Your task to perform on an android device: change timer sound Image 0: 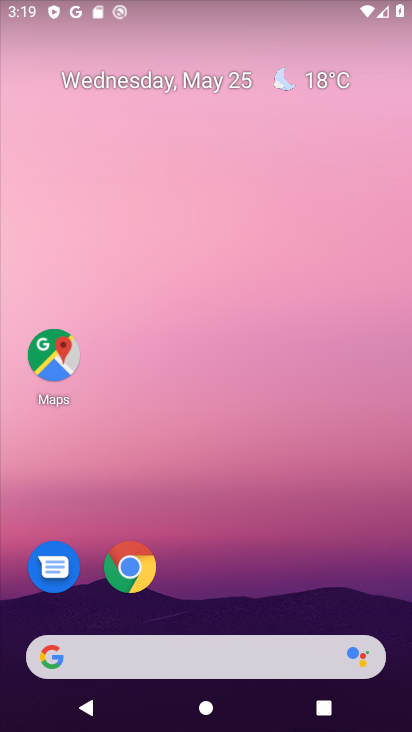
Step 0: drag from (384, 619) to (410, 373)
Your task to perform on an android device: change timer sound Image 1: 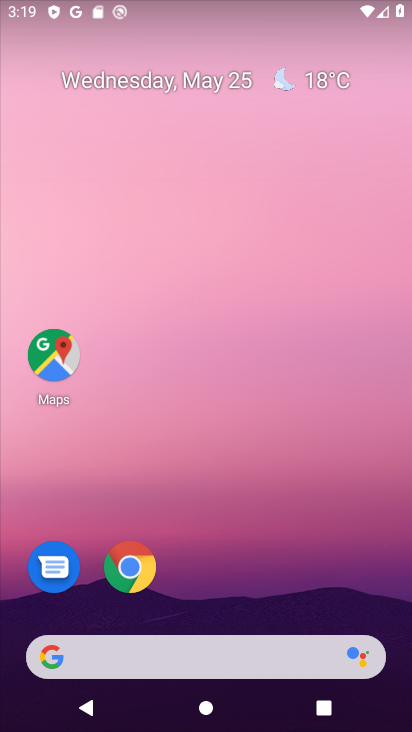
Step 1: drag from (361, 597) to (371, 185)
Your task to perform on an android device: change timer sound Image 2: 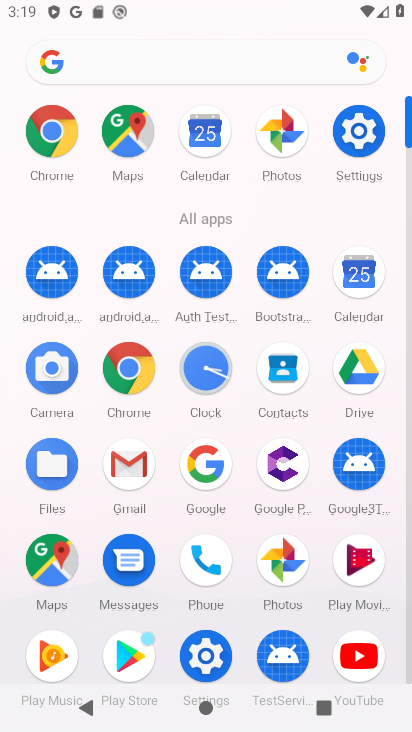
Step 2: click (206, 372)
Your task to perform on an android device: change timer sound Image 3: 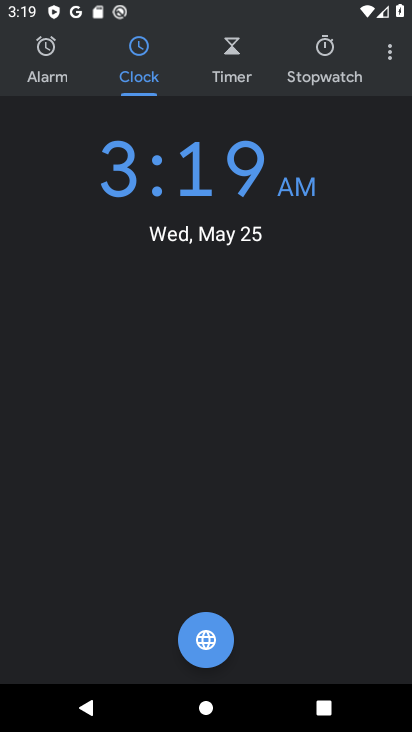
Step 3: click (395, 55)
Your task to perform on an android device: change timer sound Image 4: 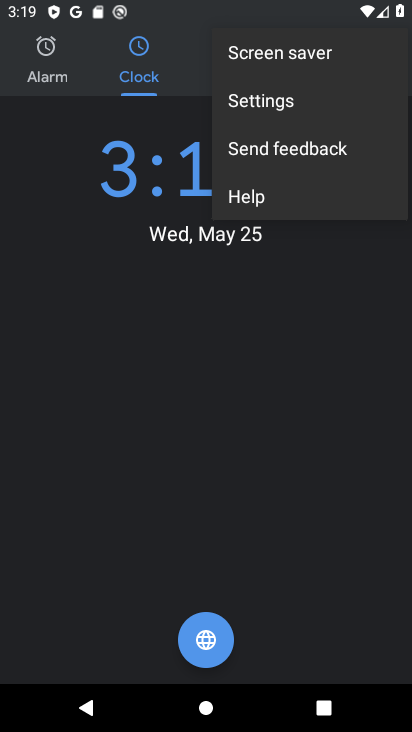
Step 4: click (332, 112)
Your task to perform on an android device: change timer sound Image 5: 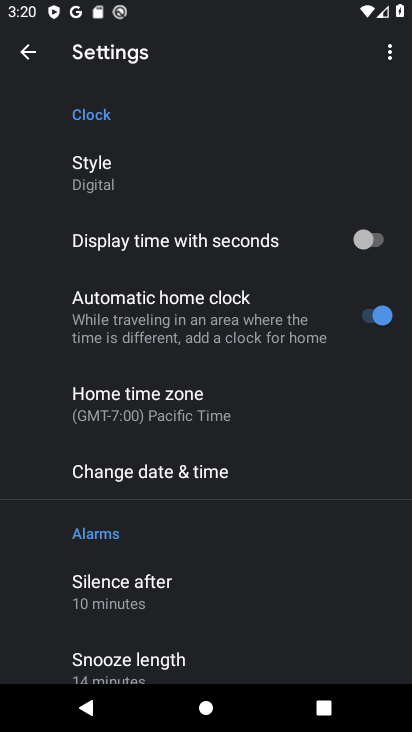
Step 5: drag from (312, 427) to (323, 316)
Your task to perform on an android device: change timer sound Image 6: 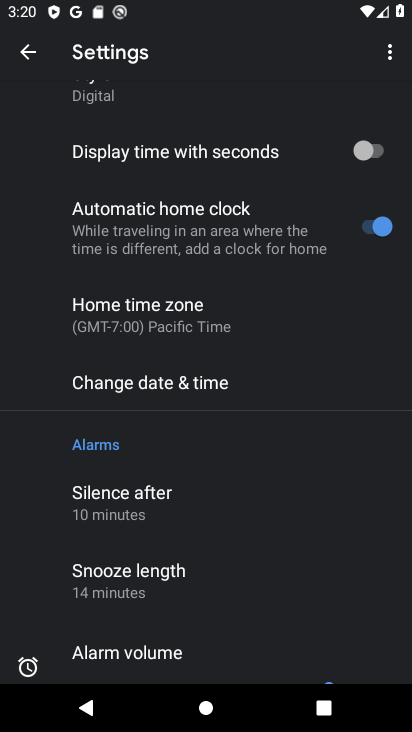
Step 6: drag from (328, 439) to (322, 351)
Your task to perform on an android device: change timer sound Image 7: 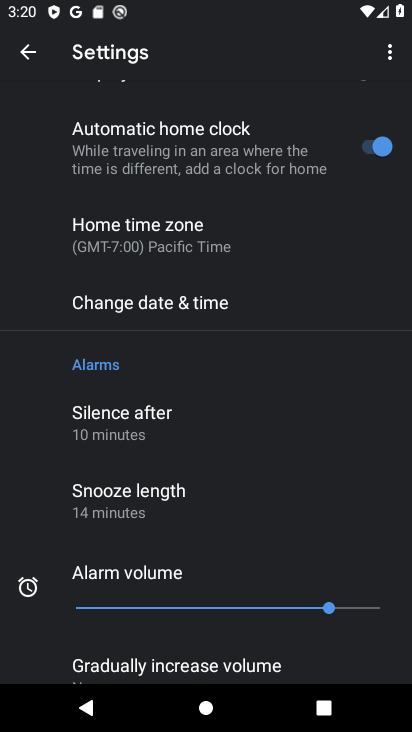
Step 7: drag from (316, 453) to (308, 362)
Your task to perform on an android device: change timer sound Image 8: 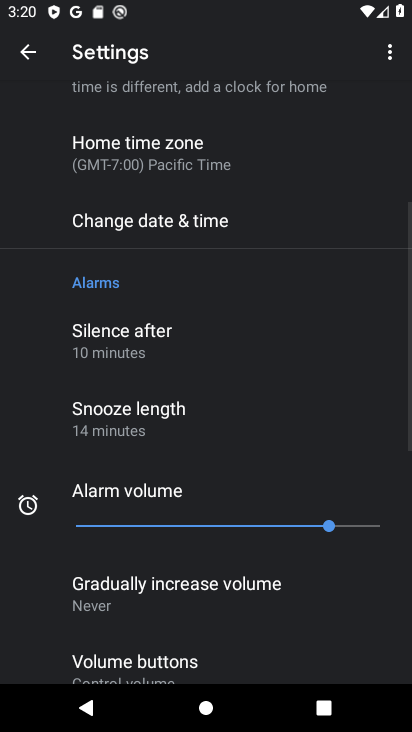
Step 8: drag from (298, 467) to (303, 354)
Your task to perform on an android device: change timer sound Image 9: 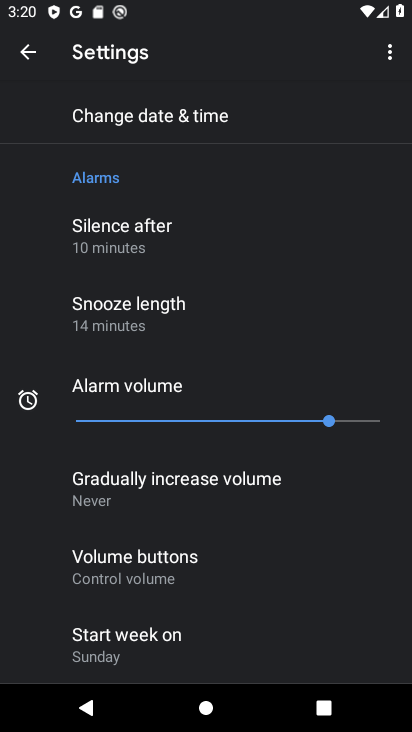
Step 9: drag from (284, 513) to (285, 413)
Your task to perform on an android device: change timer sound Image 10: 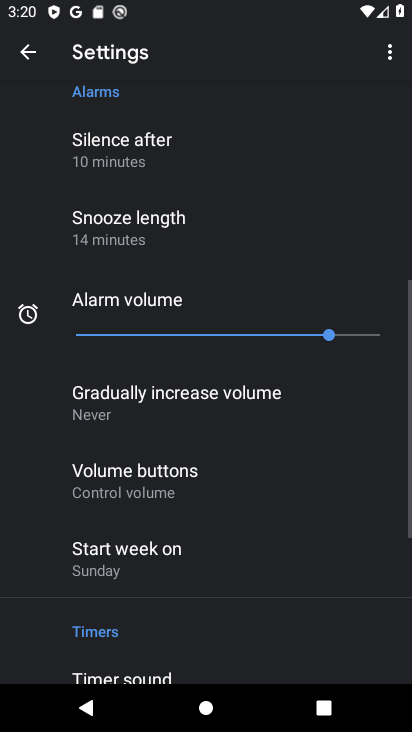
Step 10: drag from (289, 524) to (301, 435)
Your task to perform on an android device: change timer sound Image 11: 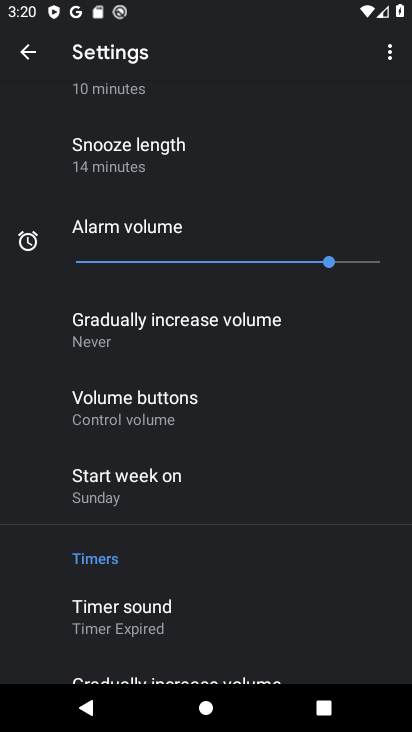
Step 11: drag from (292, 544) to (298, 464)
Your task to perform on an android device: change timer sound Image 12: 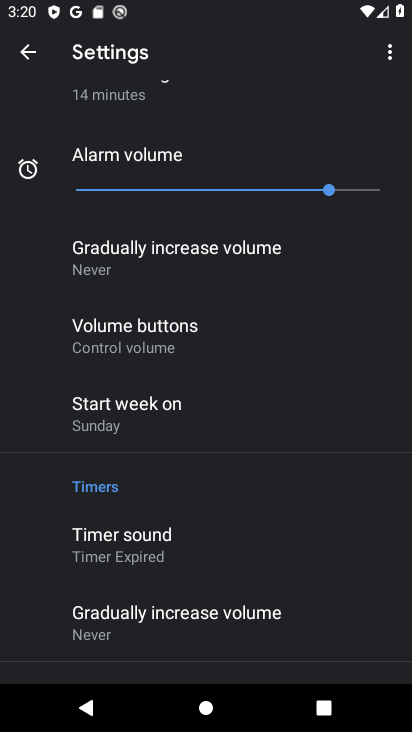
Step 12: drag from (294, 543) to (306, 448)
Your task to perform on an android device: change timer sound Image 13: 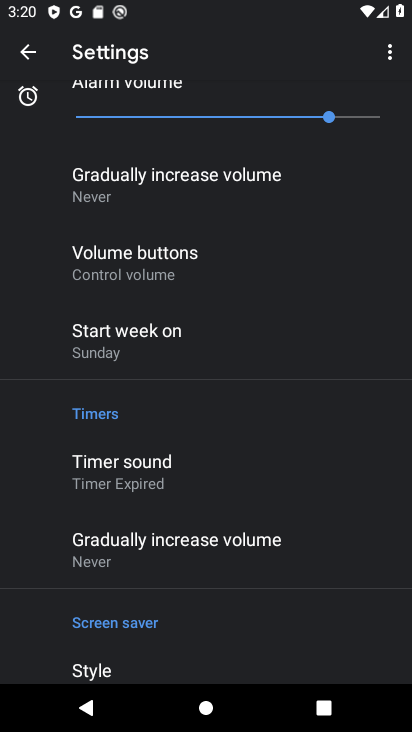
Step 13: drag from (321, 558) to (331, 439)
Your task to perform on an android device: change timer sound Image 14: 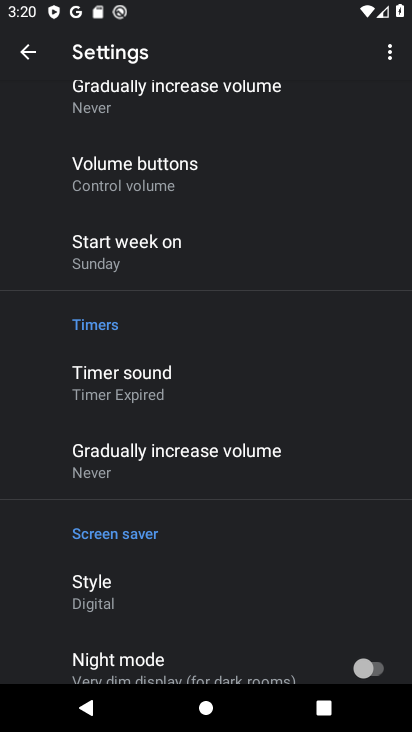
Step 14: drag from (334, 553) to (339, 472)
Your task to perform on an android device: change timer sound Image 15: 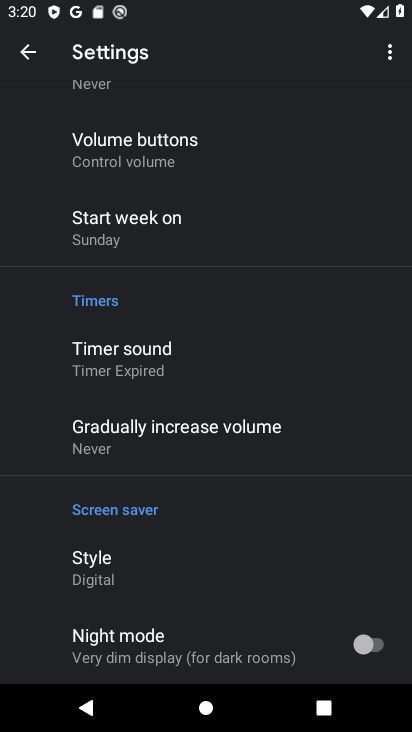
Step 15: drag from (339, 582) to (321, 439)
Your task to perform on an android device: change timer sound Image 16: 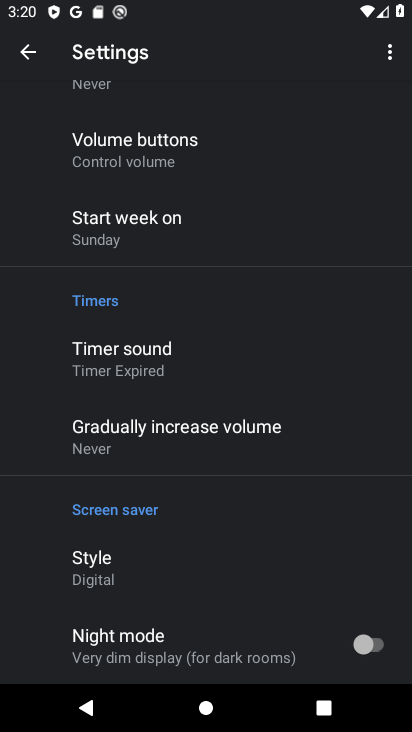
Step 16: drag from (317, 295) to (308, 390)
Your task to perform on an android device: change timer sound Image 17: 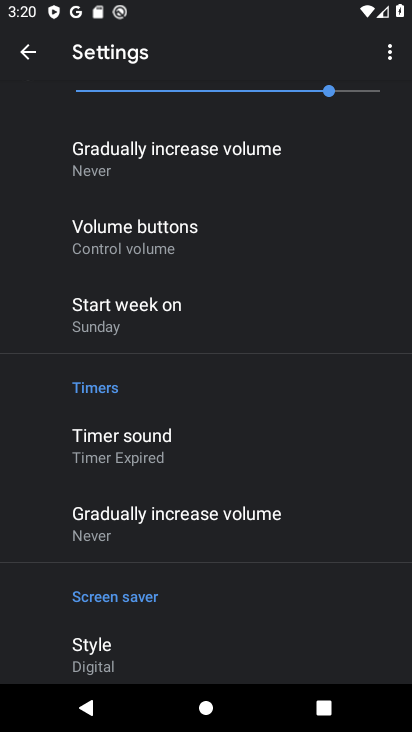
Step 17: click (257, 458)
Your task to perform on an android device: change timer sound Image 18: 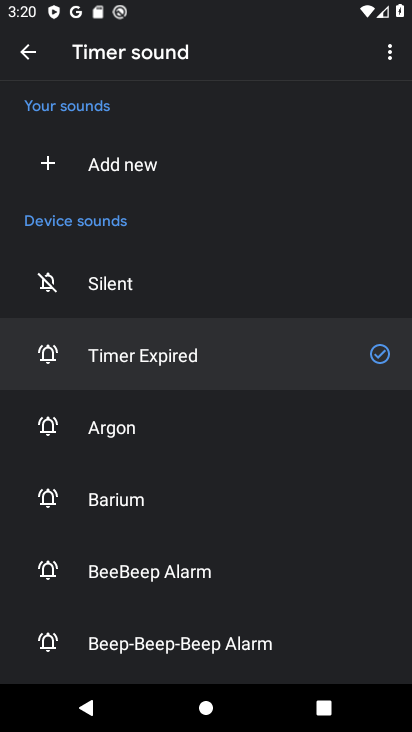
Step 18: click (201, 497)
Your task to perform on an android device: change timer sound Image 19: 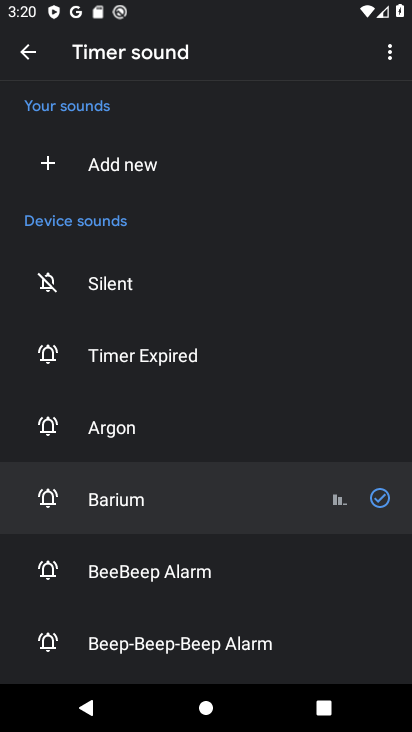
Step 19: task complete